Your task to perform on an android device: Go to accessibility settings Image 0: 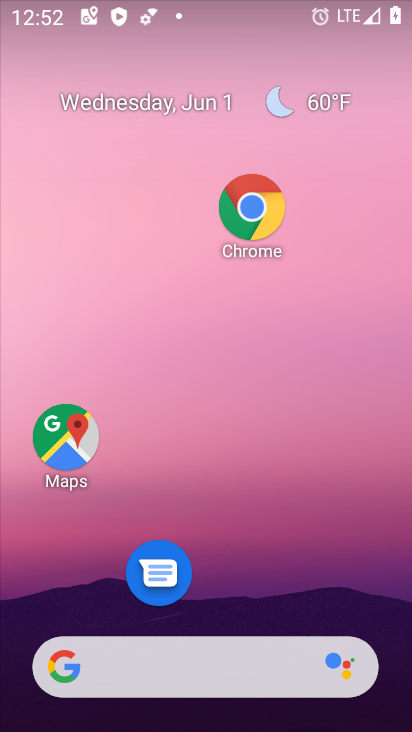
Step 0: drag from (238, 593) to (200, 108)
Your task to perform on an android device: Go to accessibility settings Image 1: 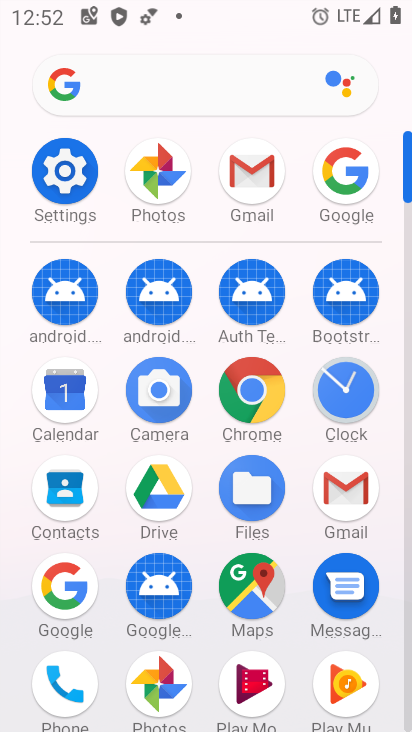
Step 1: click (69, 203)
Your task to perform on an android device: Go to accessibility settings Image 2: 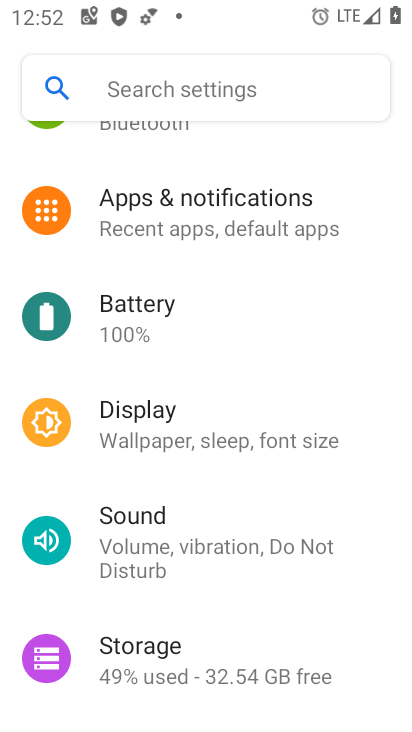
Step 2: drag from (213, 564) to (200, 360)
Your task to perform on an android device: Go to accessibility settings Image 3: 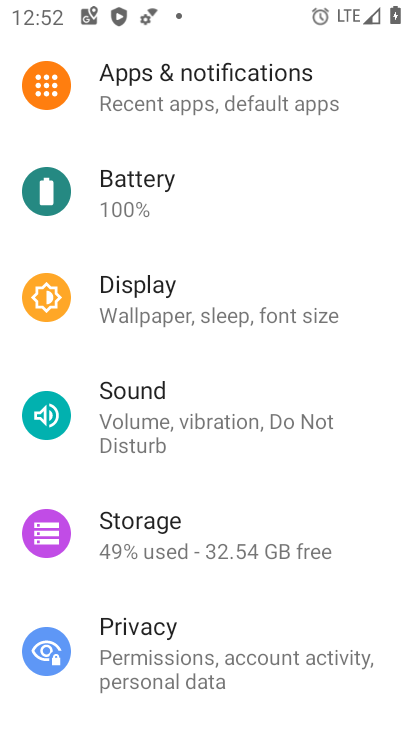
Step 3: drag from (227, 590) to (219, 307)
Your task to perform on an android device: Go to accessibility settings Image 4: 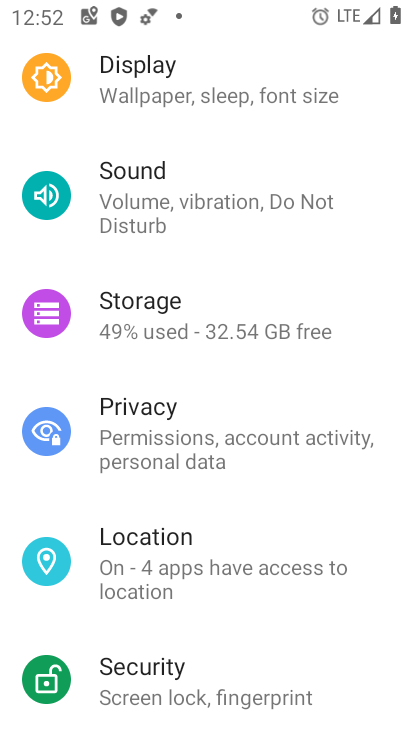
Step 4: drag from (197, 525) to (198, 277)
Your task to perform on an android device: Go to accessibility settings Image 5: 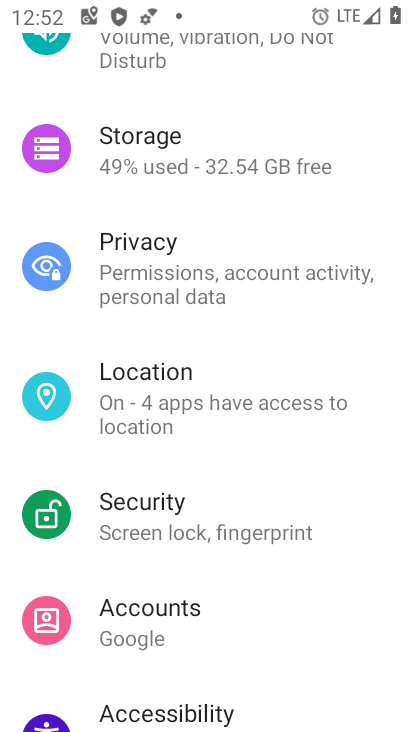
Step 5: drag from (220, 433) to (220, 289)
Your task to perform on an android device: Go to accessibility settings Image 6: 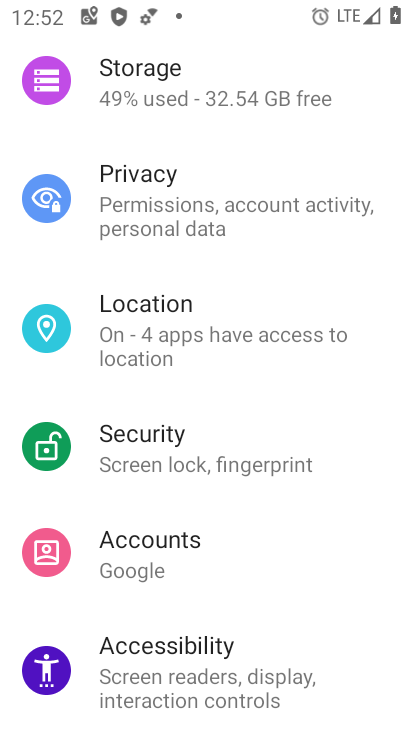
Step 6: drag from (228, 590) to (245, 344)
Your task to perform on an android device: Go to accessibility settings Image 7: 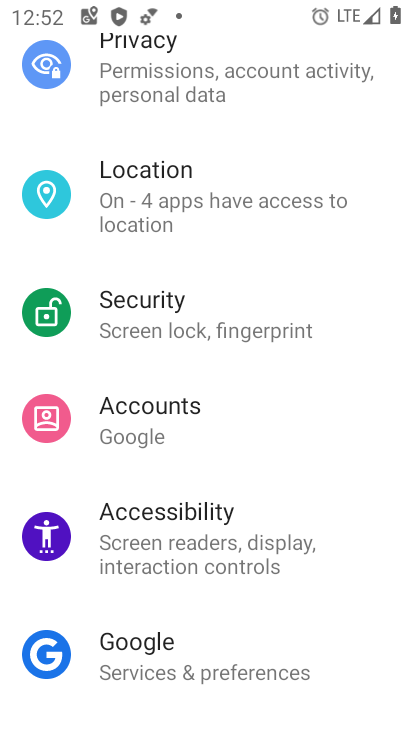
Step 7: click (237, 503)
Your task to perform on an android device: Go to accessibility settings Image 8: 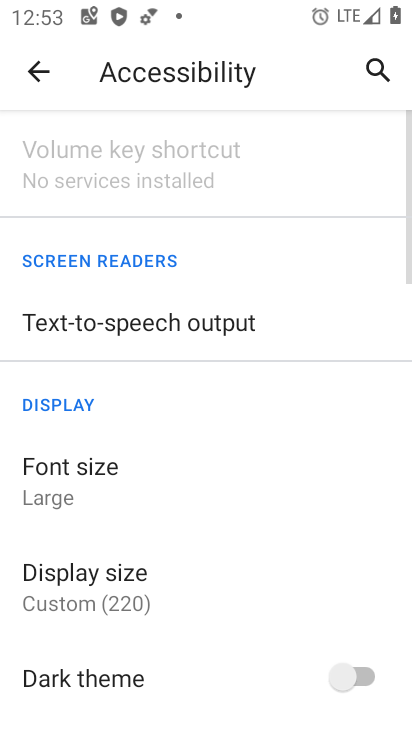
Step 8: task complete